Your task to perform on an android device: star an email in the gmail app Image 0: 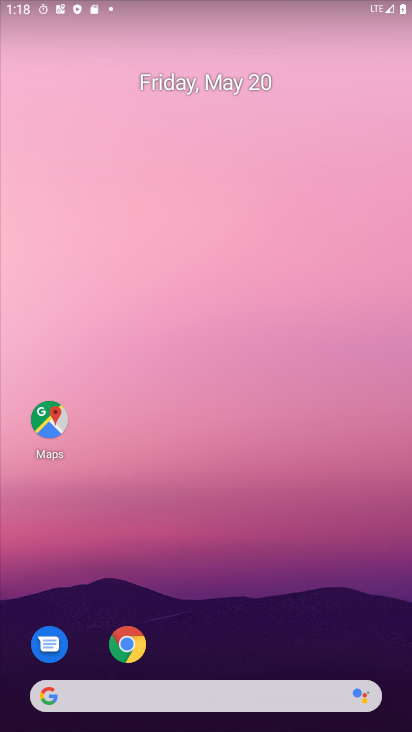
Step 0: drag from (269, 517) to (317, 15)
Your task to perform on an android device: star an email in the gmail app Image 1: 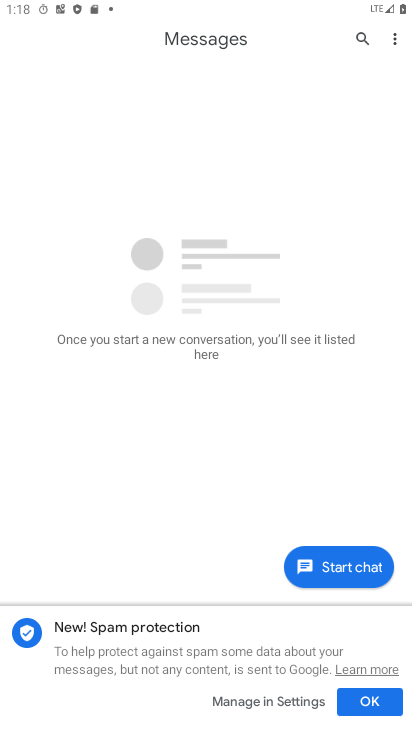
Step 1: press home button
Your task to perform on an android device: star an email in the gmail app Image 2: 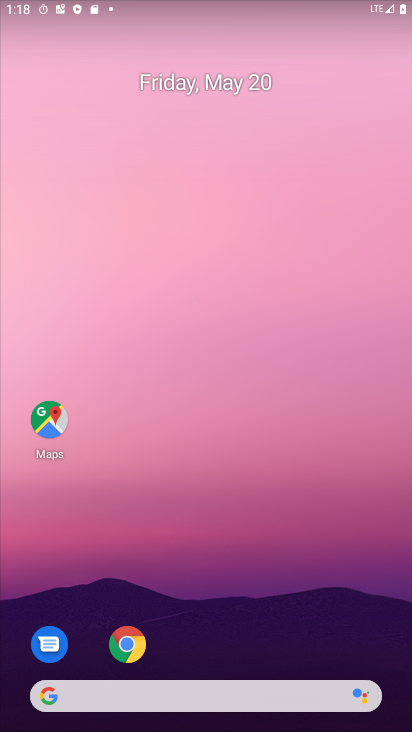
Step 2: drag from (289, 627) to (373, 106)
Your task to perform on an android device: star an email in the gmail app Image 3: 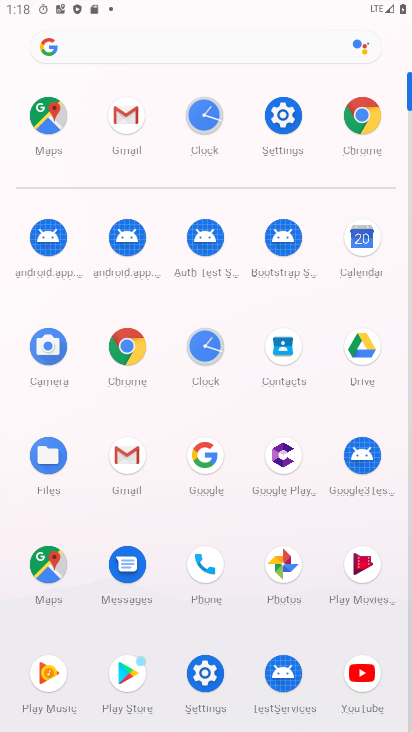
Step 3: click (136, 103)
Your task to perform on an android device: star an email in the gmail app Image 4: 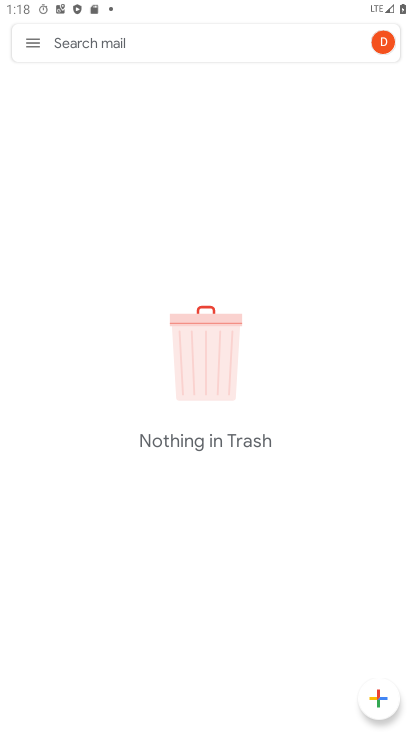
Step 4: click (33, 35)
Your task to perform on an android device: star an email in the gmail app Image 5: 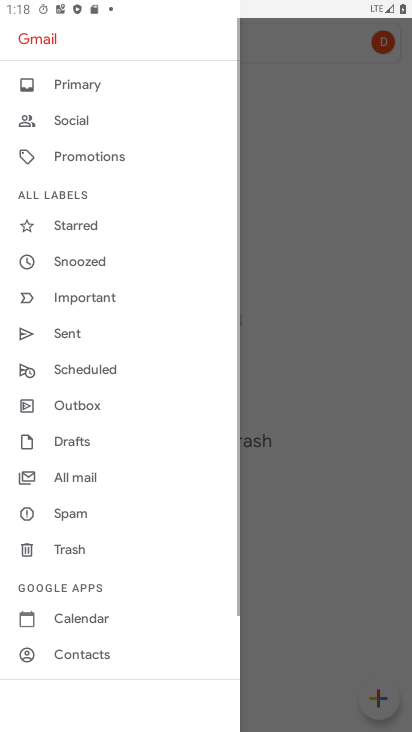
Step 5: drag from (75, 135) to (63, 607)
Your task to perform on an android device: star an email in the gmail app Image 6: 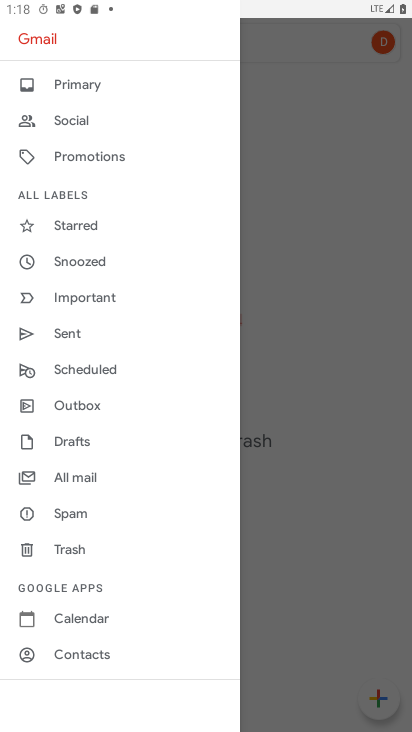
Step 6: click (57, 473)
Your task to perform on an android device: star an email in the gmail app Image 7: 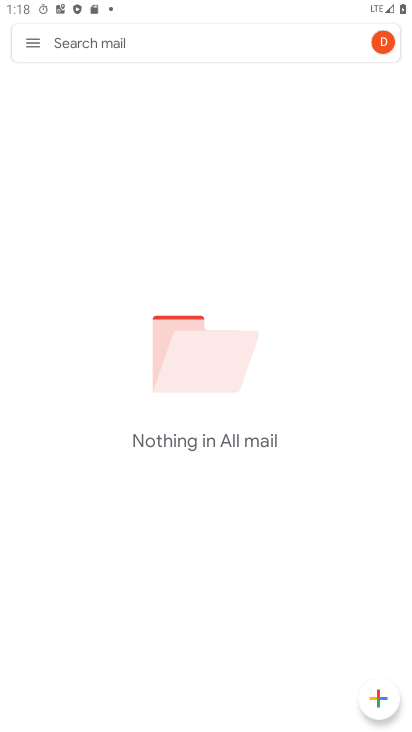
Step 7: task complete